Your task to perform on an android device: make emails show in primary in the gmail app Image 0: 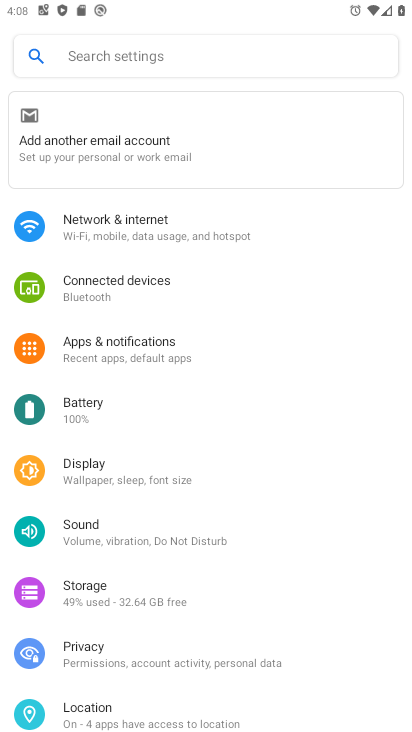
Step 0: press home button
Your task to perform on an android device: make emails show in primary in the gmail app Image 1: 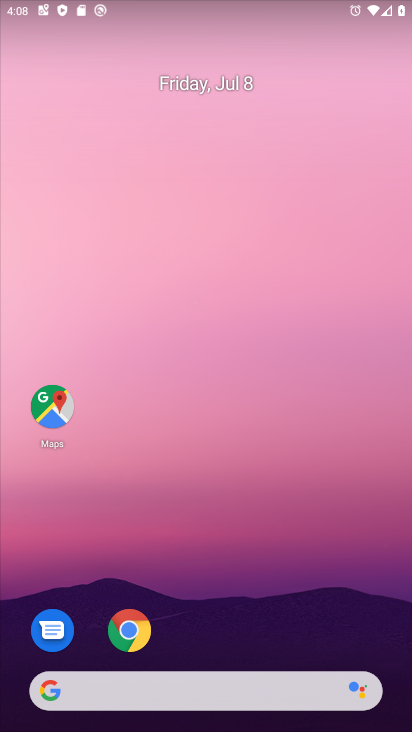
Step 1: drag from (231, 645) to (225, 142)
Your task to perform on an android device: make emails show in primary in the gmail app Image 2: 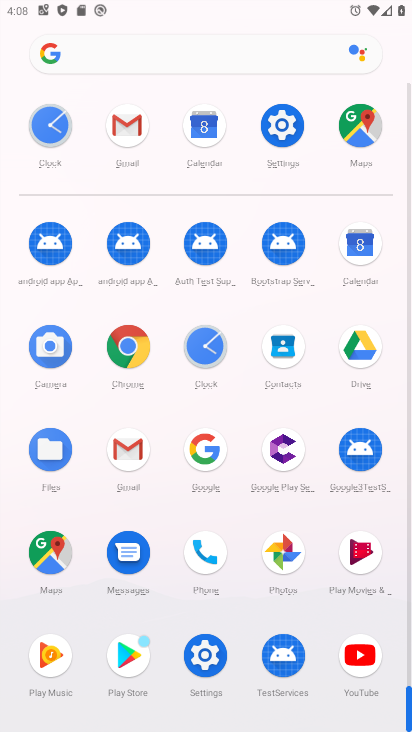
Step 2: click (127, 126)
Your task to perform on an android device: make emails show in primary in the gmail app Image 3: 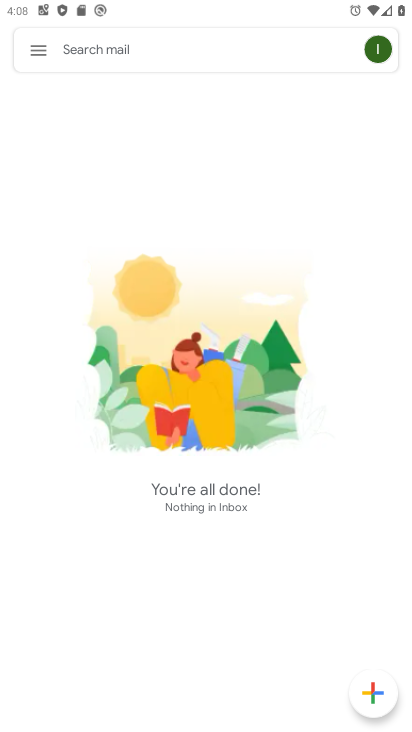
Step 3: click (42, 50)
Your task to perform on an android device: make emails show in primary in the gmail app Image 4: 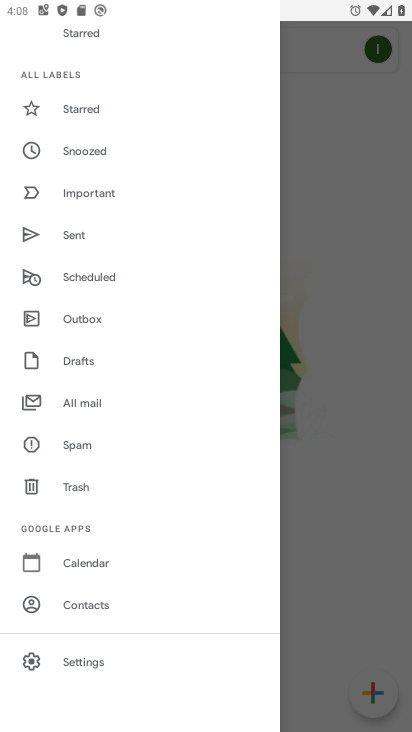
Step 4: click (84, 663)
Your task to perform on an android device: make emails show in primary in the gmail app Image 5: 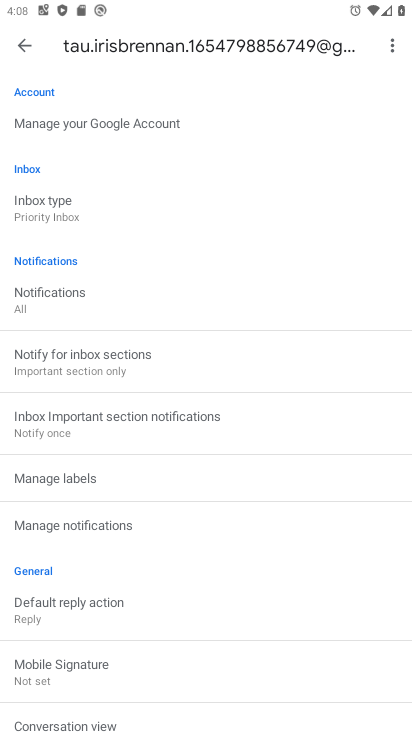
Step 5: click (55, 220)
Your task to perform on an android device: make emails show in primary in the gmail app Image 6: 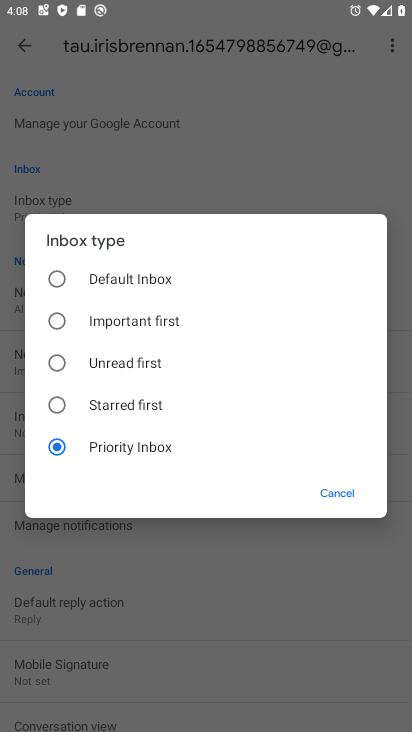
Step 6: click (53, 280)
Your task to perform on an android device: make emails show in primary in the gmail app Image 7: 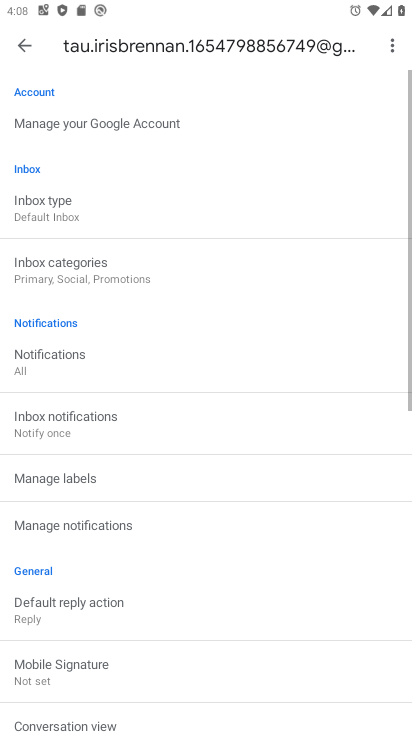
Step 7: click (53, 280)
Your task to perform on an android device: make emails show in primary in the gmail app Image 8: 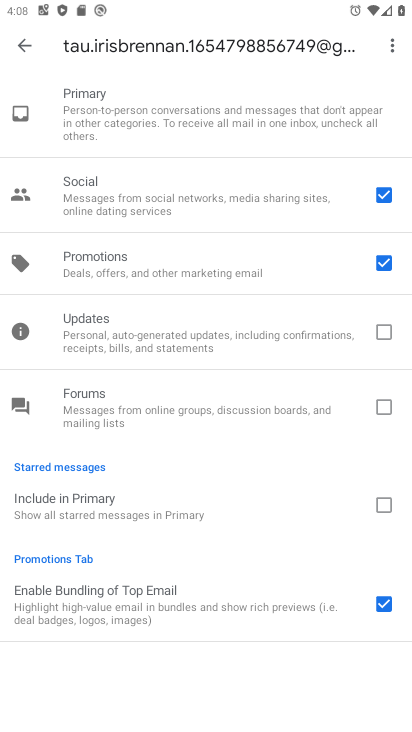
Step 8: click (376, 258)
Your task to perform on an android device: make emails show in primary in the gmail app Image 9: 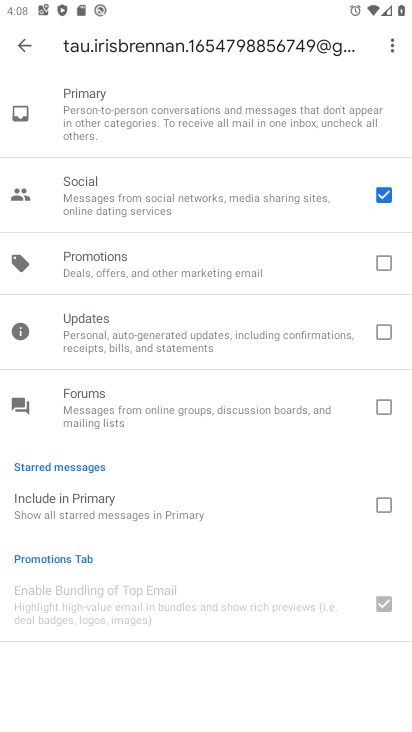
Step 9: click (388, 182)
Your task to perform on an android device: make emails show in primary in the gmail app Image 10: 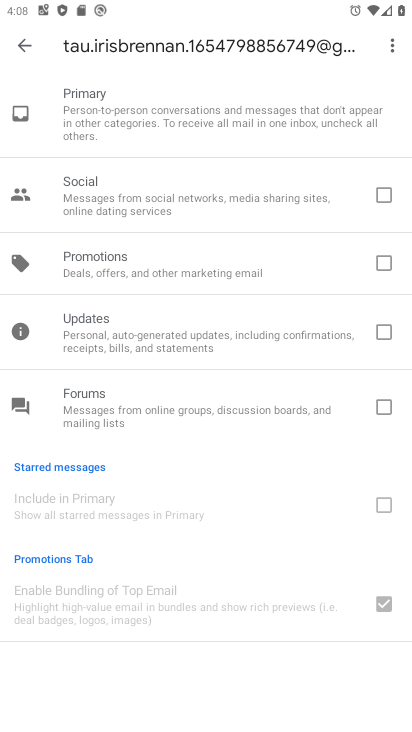
Step 10: task complete